Your task to perform on an android device: visit the assistant section in the google photos Image 0: 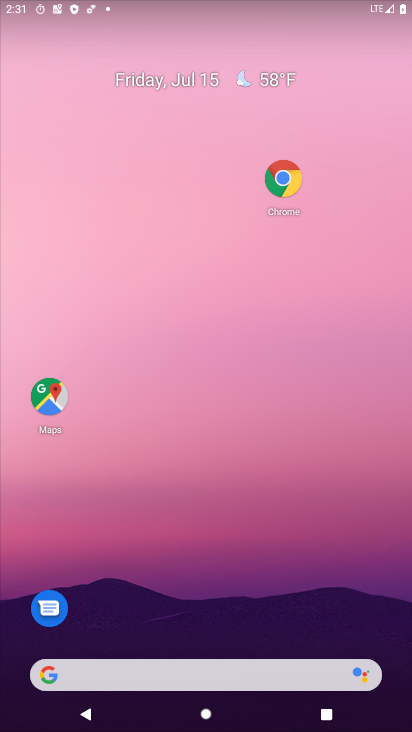
Step 0: press home button
Your task to perform on an android device: visit the assistant section in the google photos Image 1: 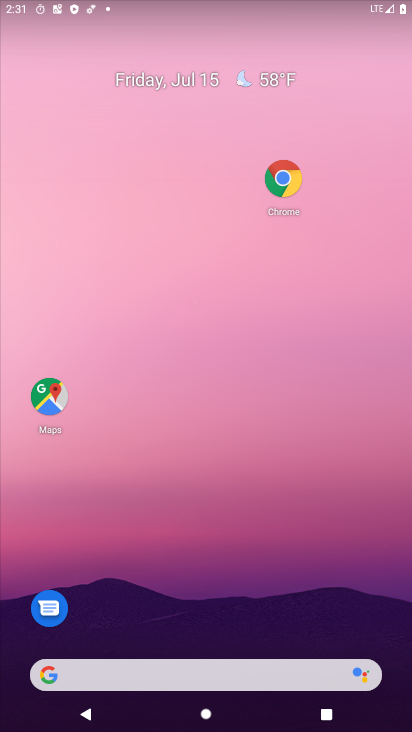
Step 1: drag from (264, 599) to (297, 123)
Your task to perform on an android device: visit the assistant section in the google photos Image 2: 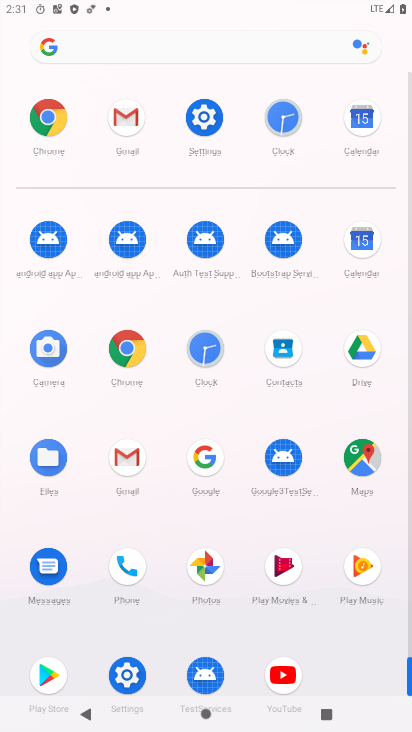
Step 2: click (195, 568)
Your task to perform on an android device: visit the assistant section in the google photos Image 3: 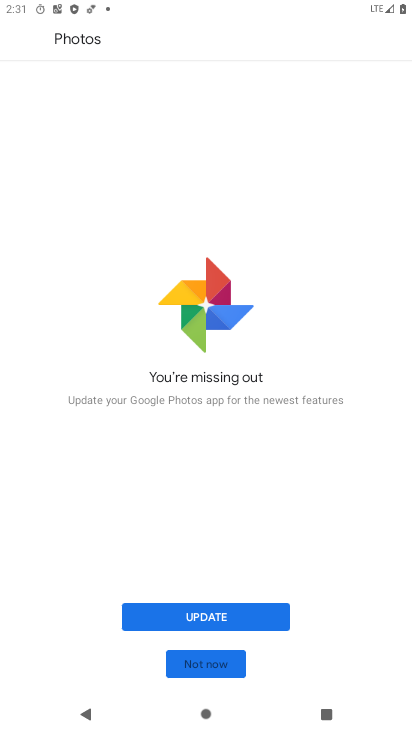
Step 3: click (232, 661)
Your task to perform on an android device: visit the assistant section in the google photos Image 4: 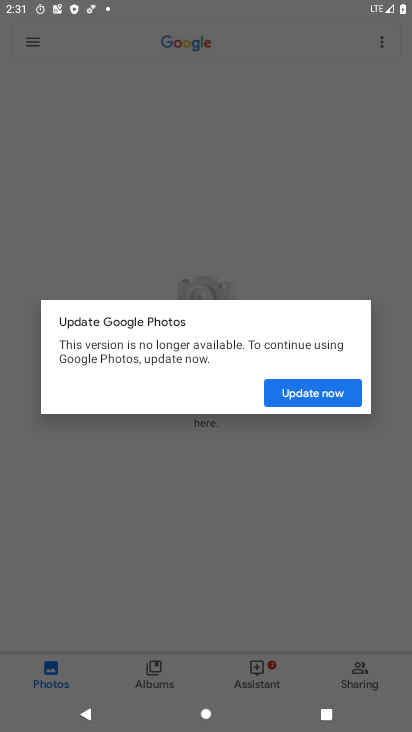
Step 4: click (320, 390)
Your task to perform on an android device: visit the assistant section in the google photos Image 5: 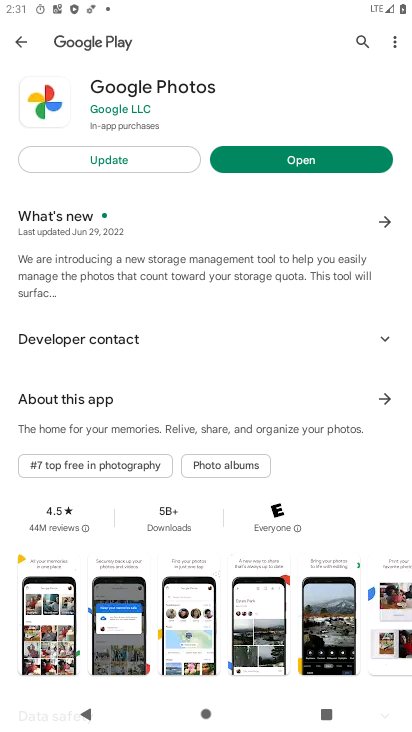
Step 5: click (117, 158)
Your task to perform on an android device: visit the assistant section in the google photos Image 6: 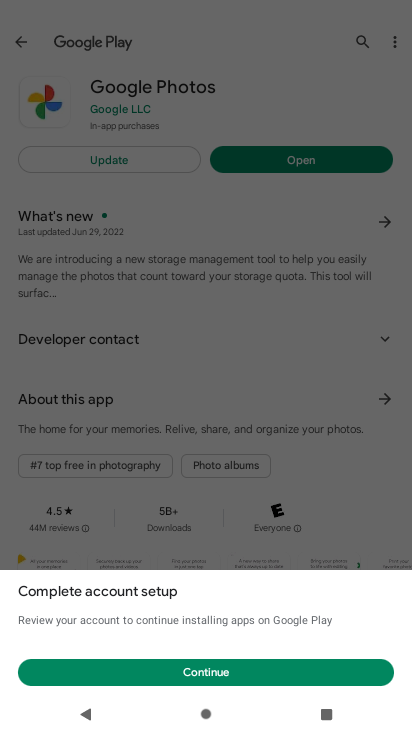
Step 6: task complete